Your task to perform on an android device: Open my contact list Image 0: 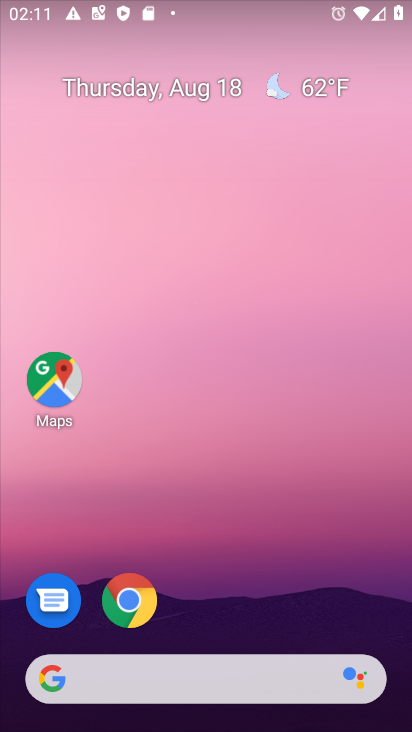
Step 0: press home button
Your task to perform on an android device: Open my contact list Image 1: 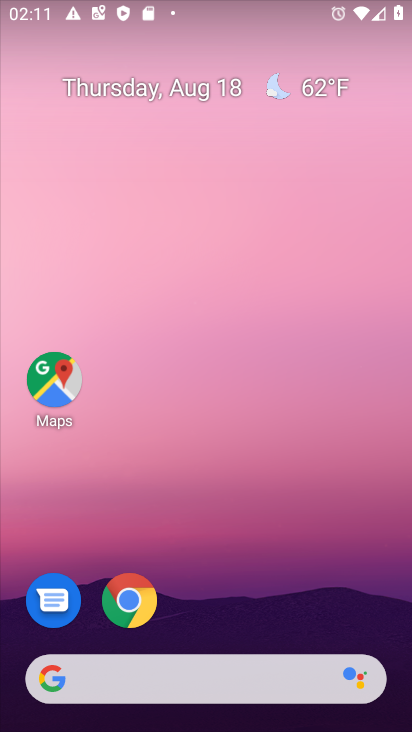
Step 1: drag from (264, 579) to (282, 96)
Your task to perform on an android device: Open my contact list Image 2: 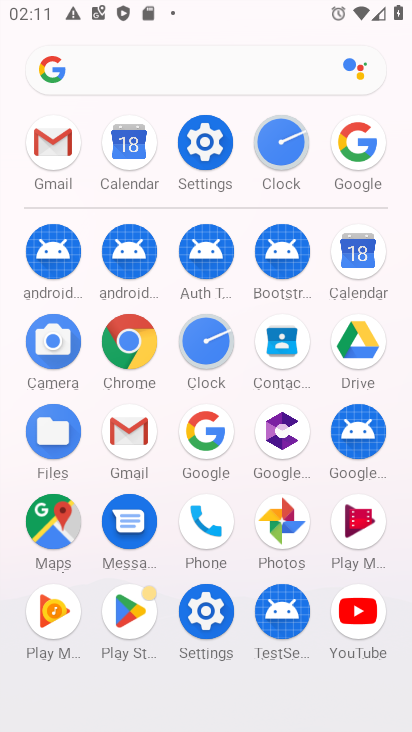
Step 2: click (289, 349)
Your task to perform on an android device: Open my contact list Image 3: 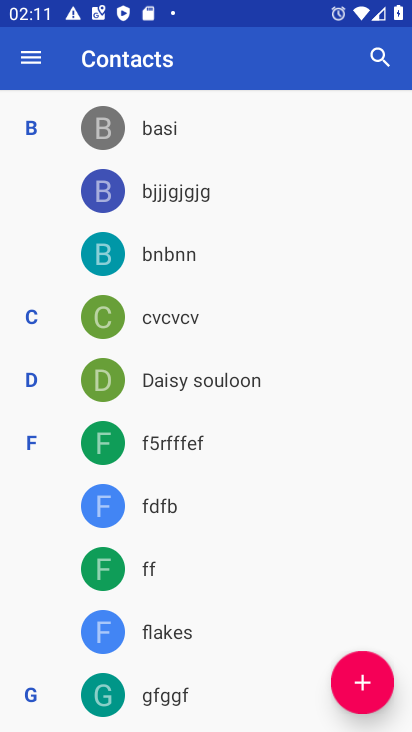
Step 3: task complete